Your task to perform on an android device: read, delete, or share a saved page in the chrome app Image 0: 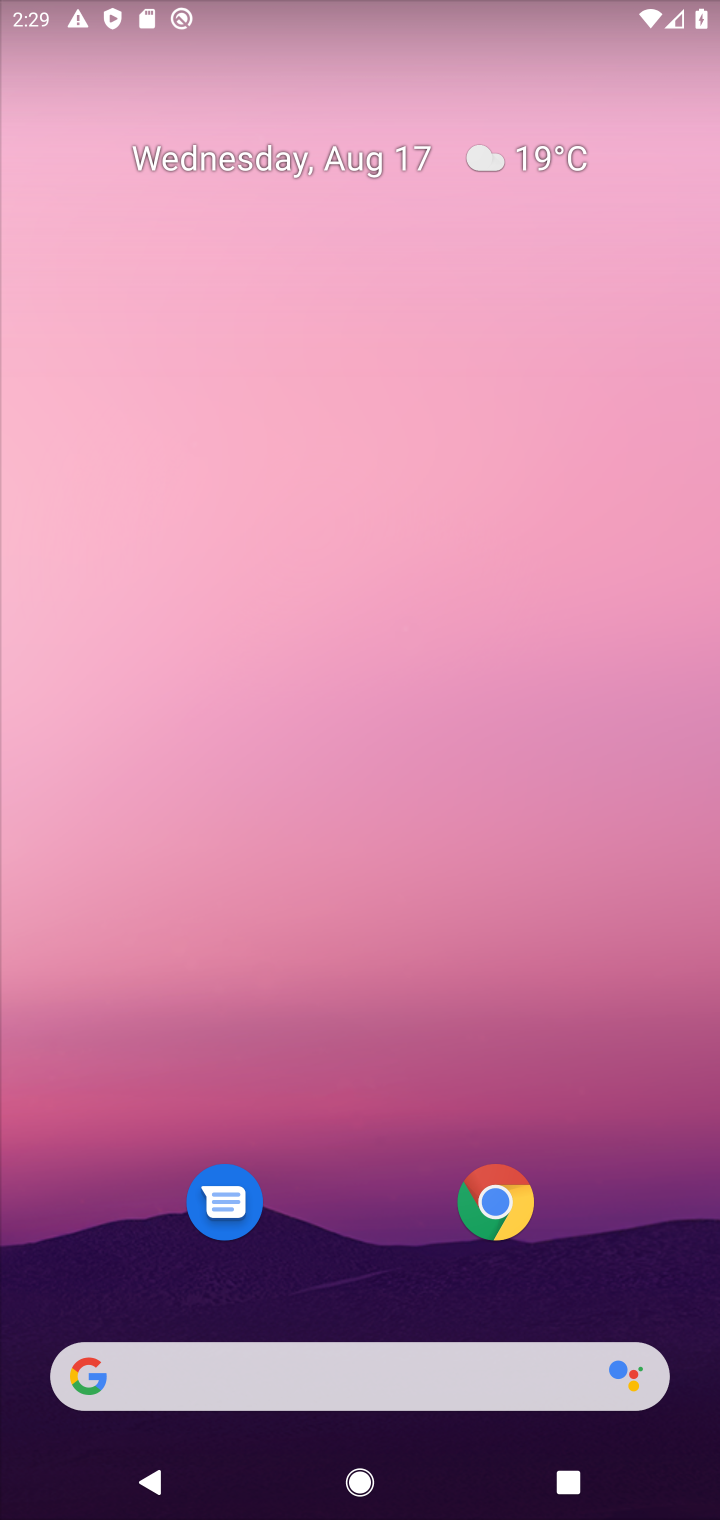
Step 0: click (510, 1214)
Your task to perform on an android device: read, delete, or share a saved page in the chrome app Image 1: 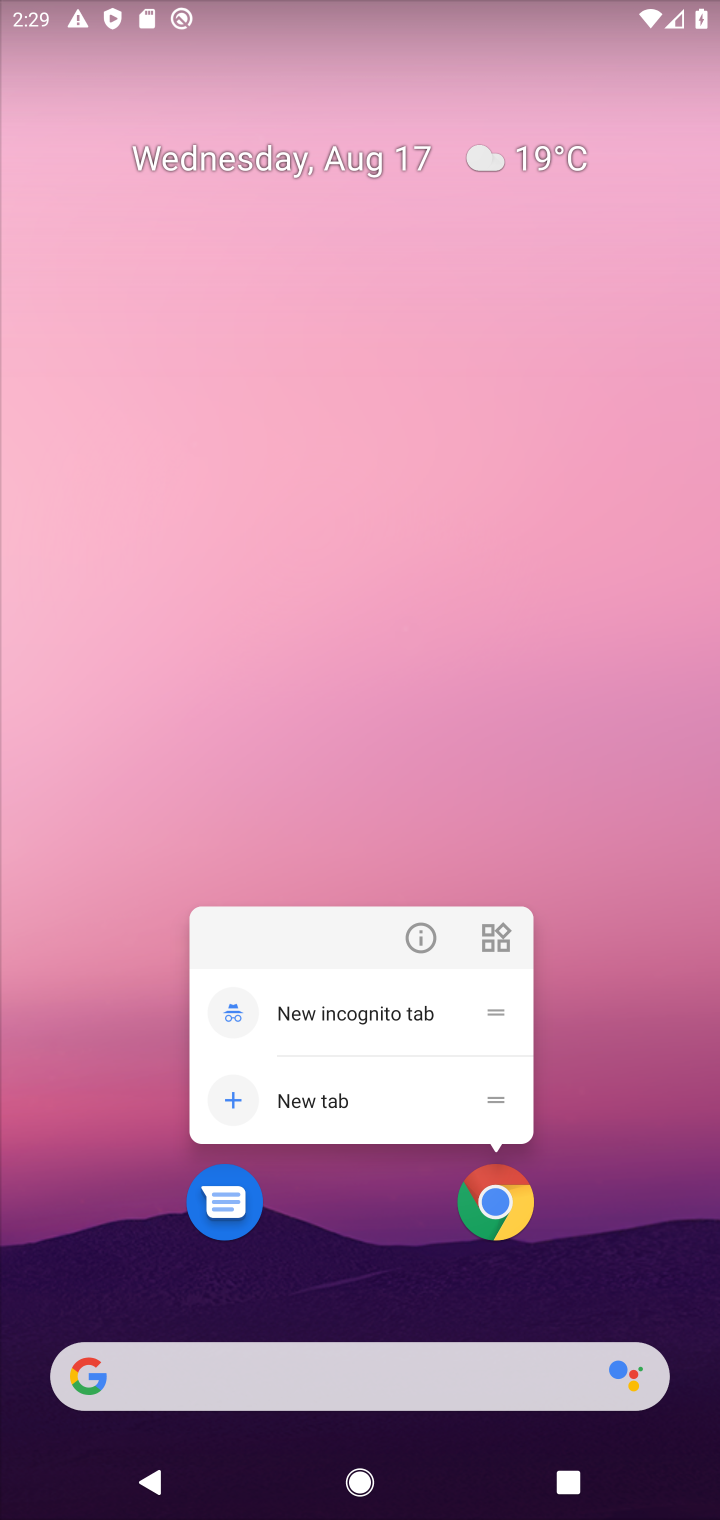
Step 1: click (494, 1221)
Your task to perform on an android device: read, delete, or share a saved page in the chrome app Image 2: 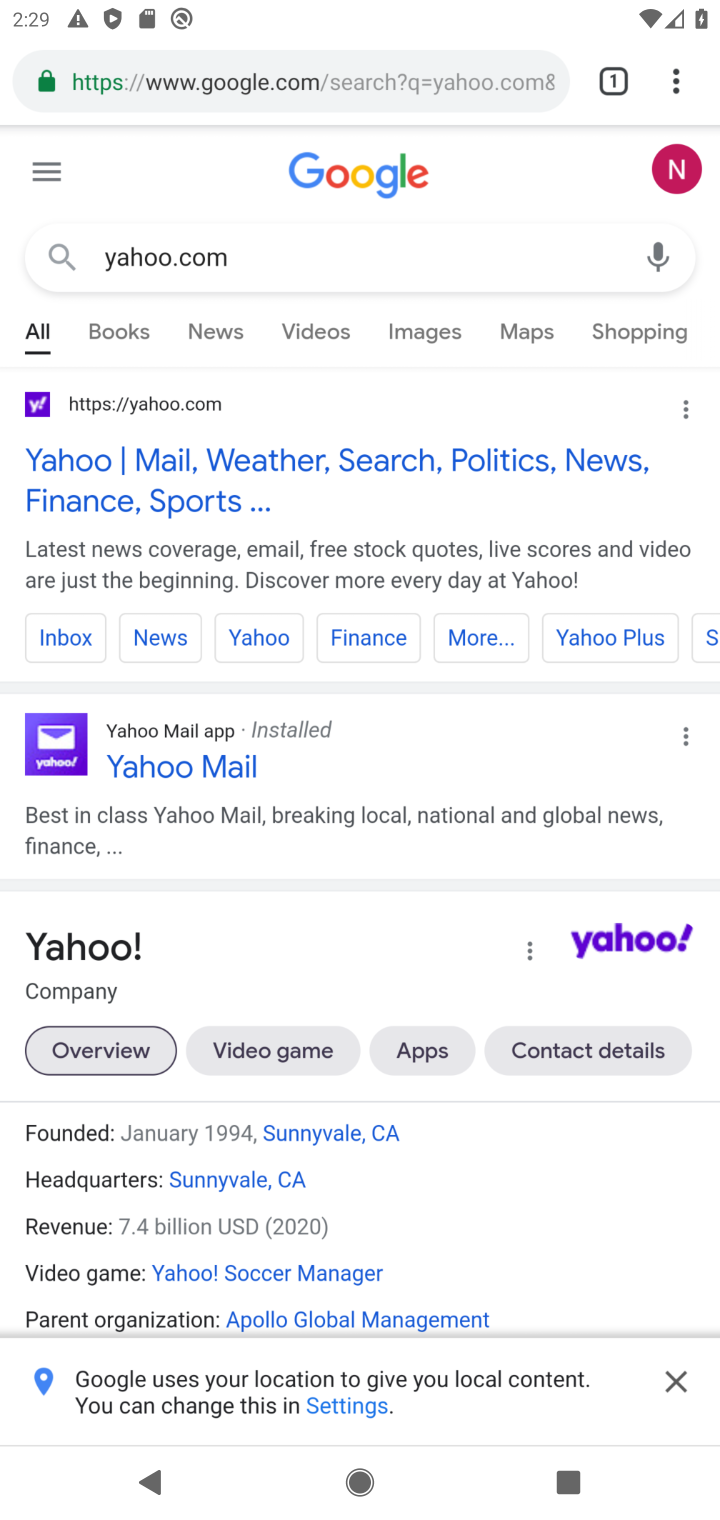
Step 2: click (510, 1186)
Your task to perform on an android device: read, delete, or share a saved page in the chrome app Image 3: 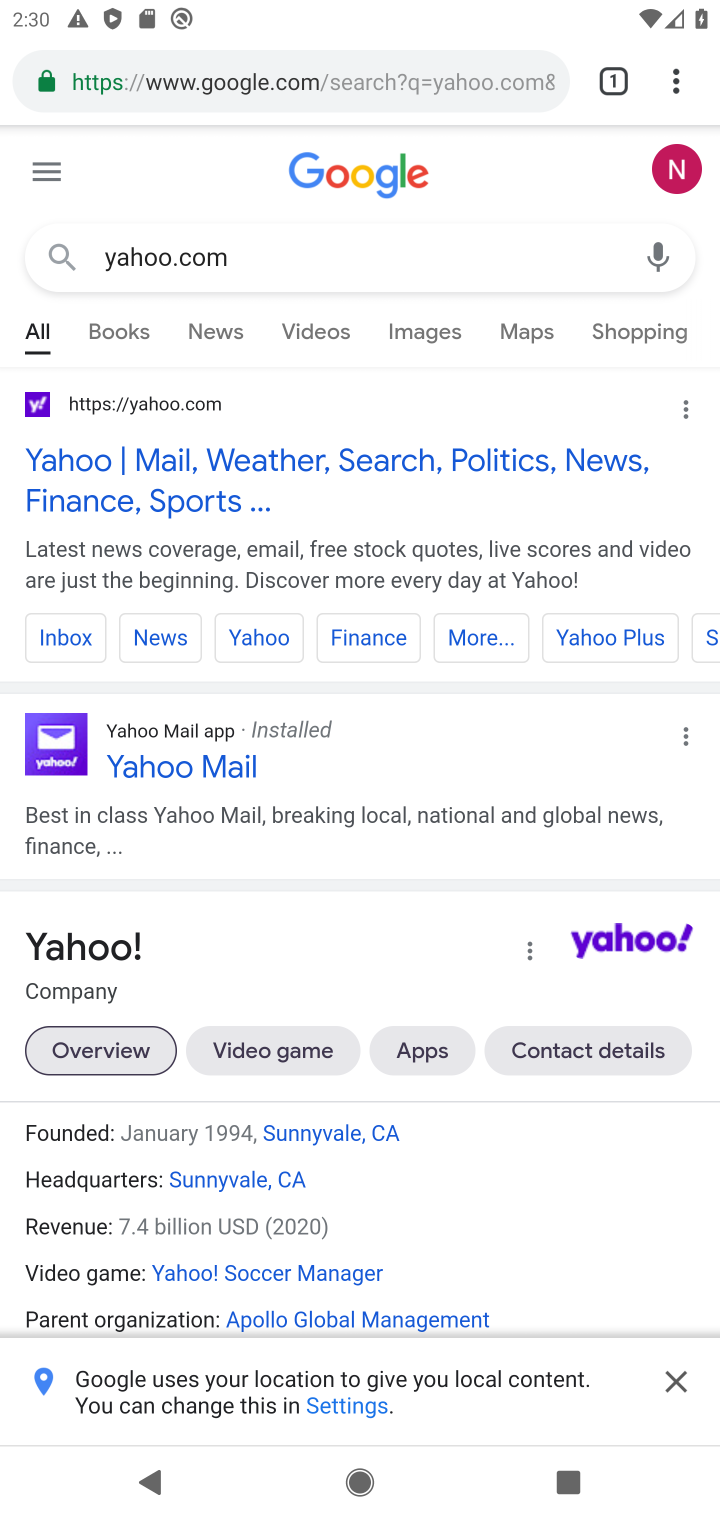
Step 3: click (674, 61)
Your task to perform on an android device: read, delete, or share a saved page in the chrome app Image 4: 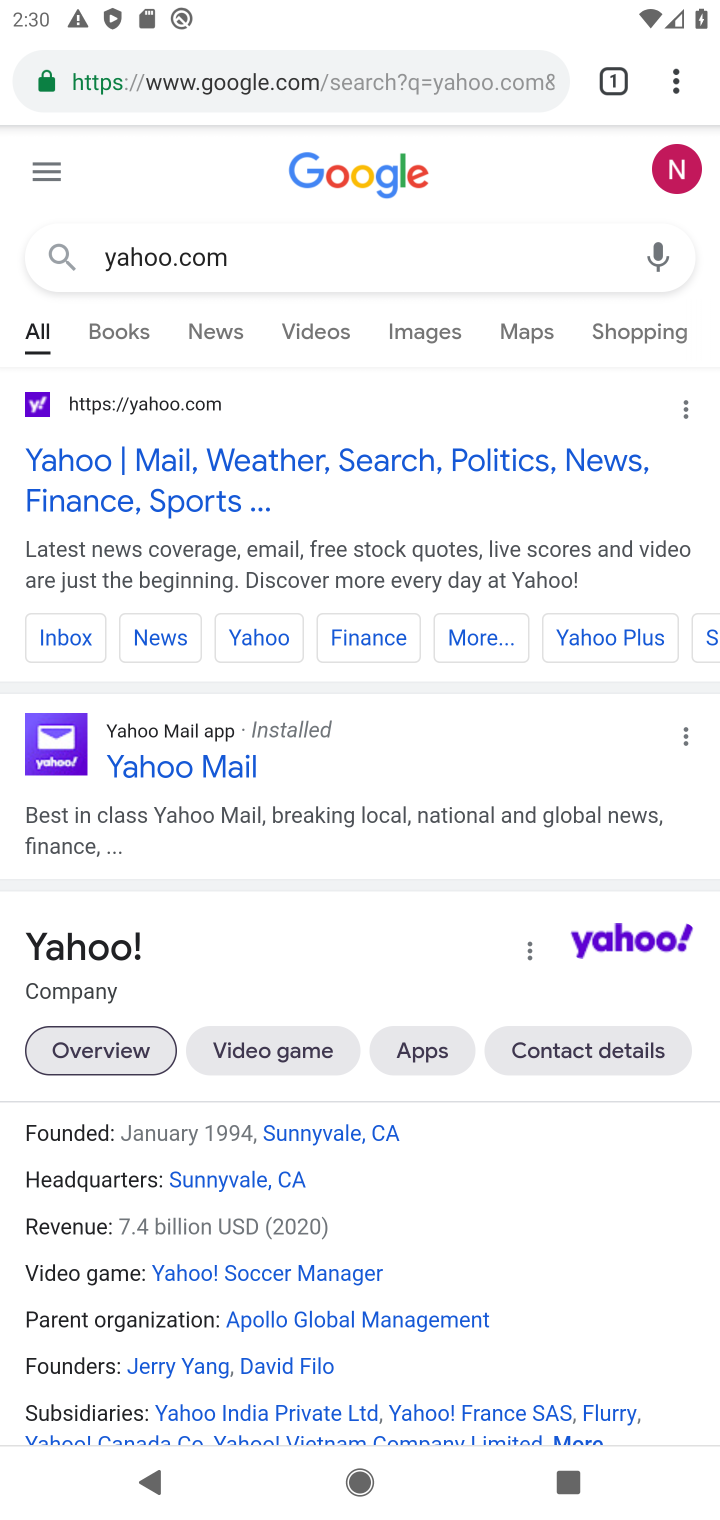
Step 4: click (687, 70)
Your task to perform on an android device: read, delete, or share a saved page in the chrome app Image 5: 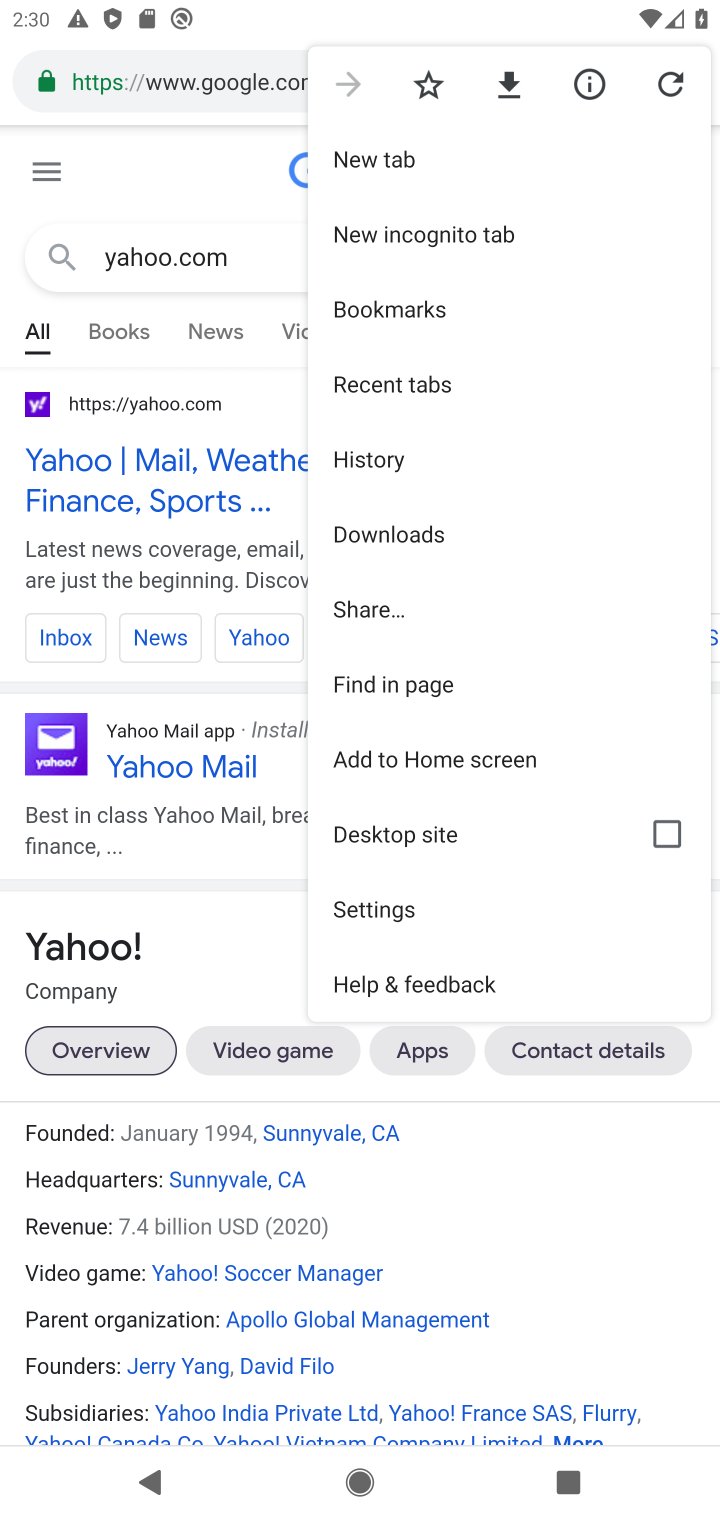
Step 5: click (441, 538)
Your task to perform on an android device: read, delete, or share a saved page in the chrome app Image 6: 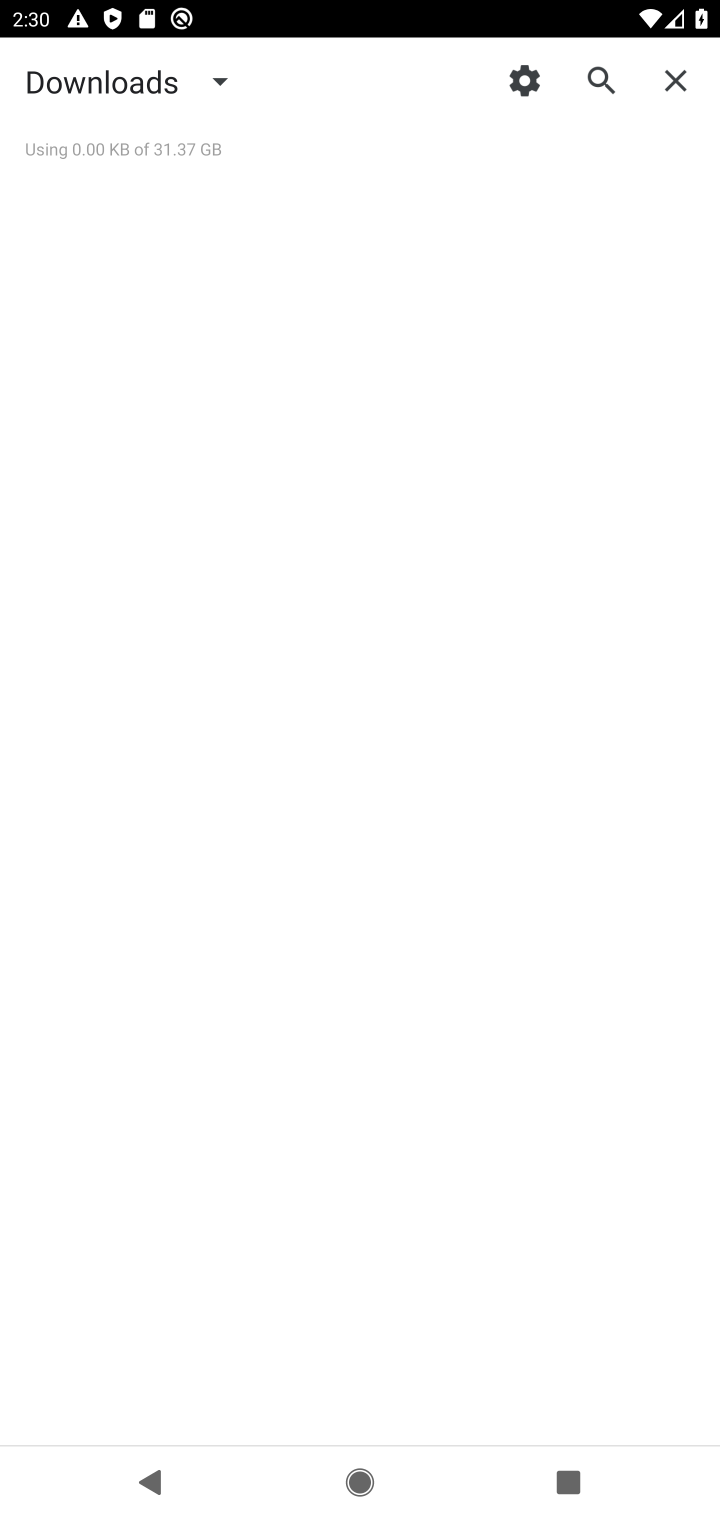
Step 6: task complete